Your task to perform on an android device: change the clock style Image 0: 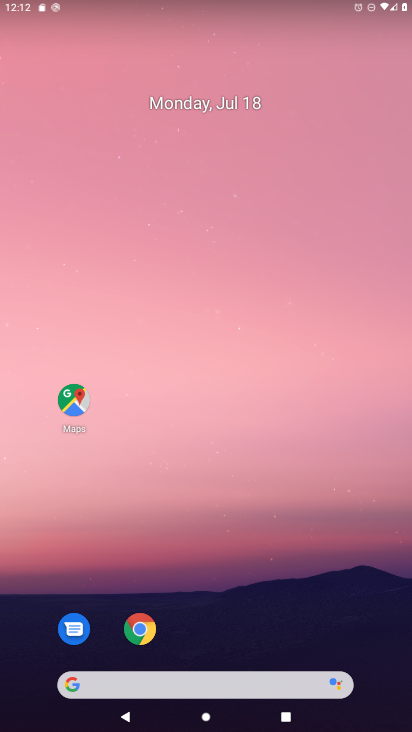
Step 0: drag from (201, 686) to (310, 4)
Your task to perform on an android device: change the clock style Image 1: 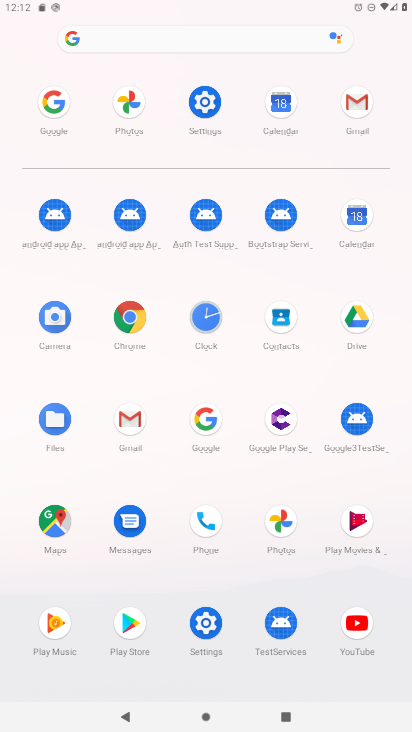
Step 1: click (206, 317)
Your task to perform on an android device: change the clock style Image 2: 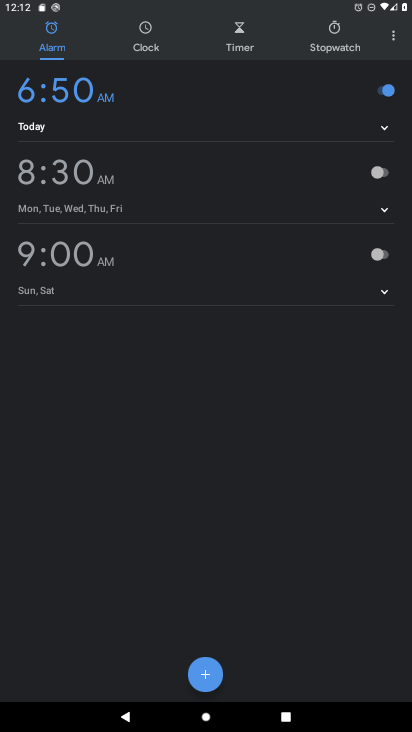
Step 2: click (397, 36)
Your task to perform on an android device: change the clock style Image 3: 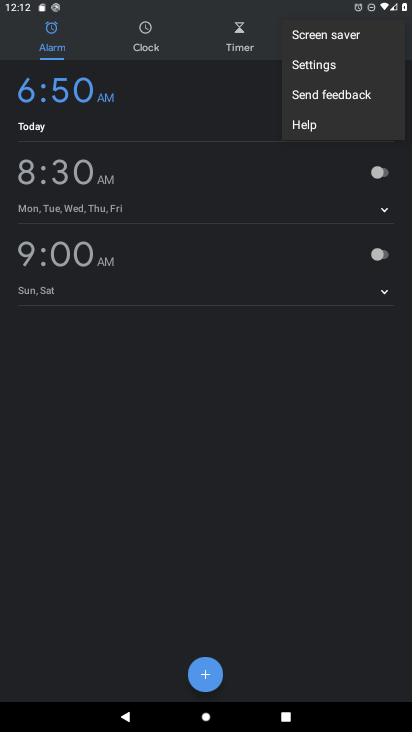
Step 3: click (336, 67)
Your task to perform on an android device: change the clock style Image 4: 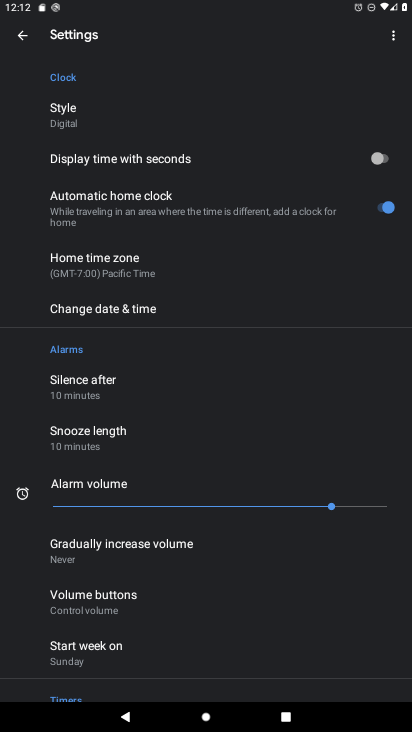
Step 4: click (75, 115)
Your task to perform on an android device: change the clock style Image 5: 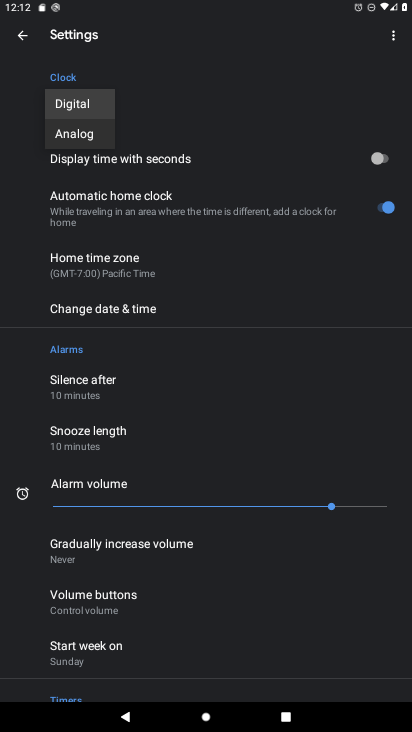
Step 5: click (88, 133)
Your task to perform on an android device: change the clock style Image 6: 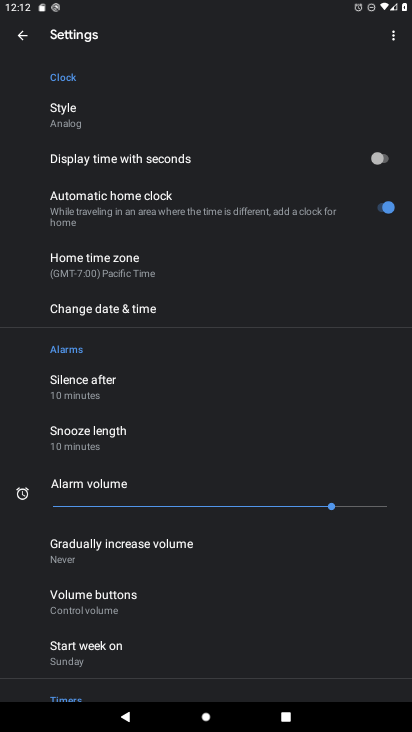
Step 6: task complete